Your task to perform on an android device: Add "razer thresher" to the cart on amazon Image 0: 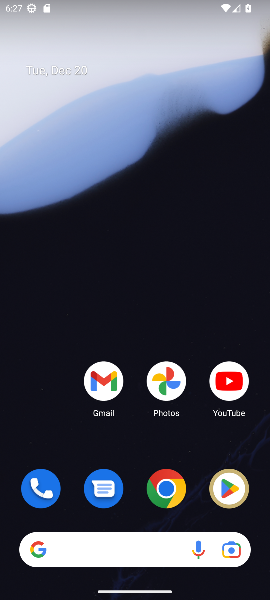
Step 0: drag from (66, 406) to (65, 31)
Your task to perform on an android device: Add "razer thresher" to the cart on amazon Image 1: 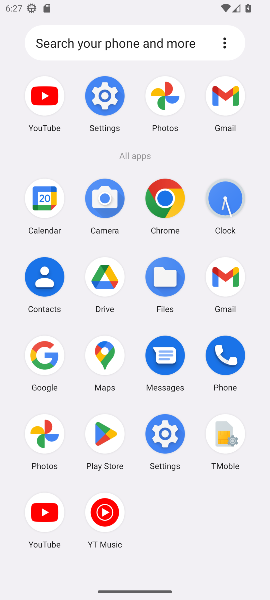
Step 1: click (45, 358)
Your task to perform on an android device: Add "razer thresher" to the cart on amazon Image 2: 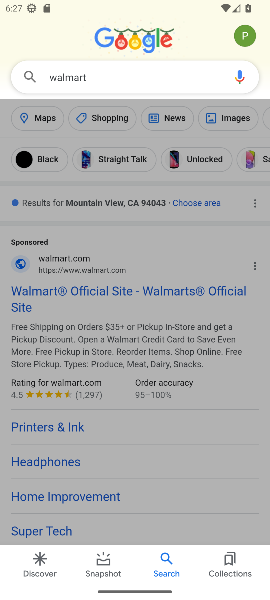
Step 2: click (110, 69)
Your task to perform on an android device: Add "razer thresher" to the cart on amazon Image 3: 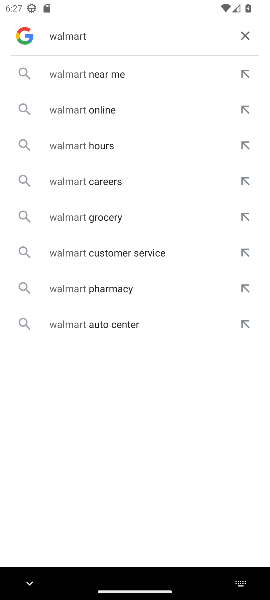
Step 3: click (246, 34)
Your task to perform on an android device: Add "razer thresher" to the cart on amazon Image 4: 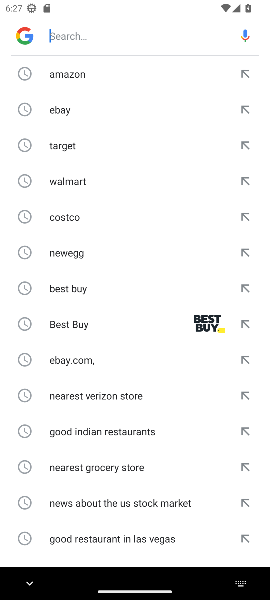
Step 4: type "amazon"
Your task to perform on an android device: Add "razer thresher" to the cart on amazon Image 5: 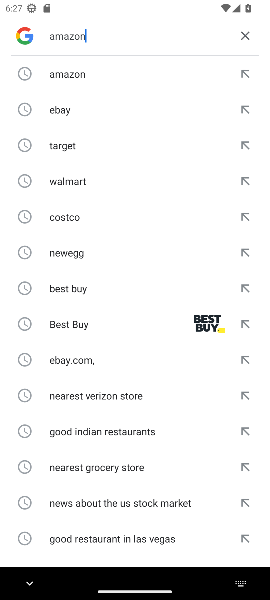
Step 5: press enter
Your task to perform on an android device: Add "razer thresher" to the cart on amazon Image 6: 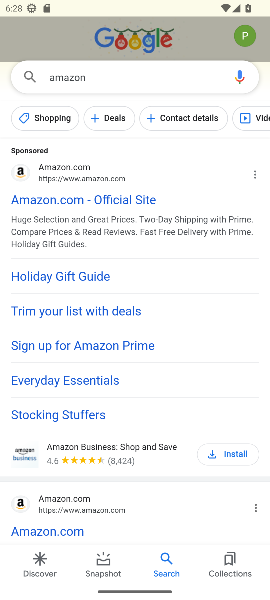
Step 6: click (90, 196)
Your task to perform on an android device: Add "razer thresher" to the cart on amazon Image 7: 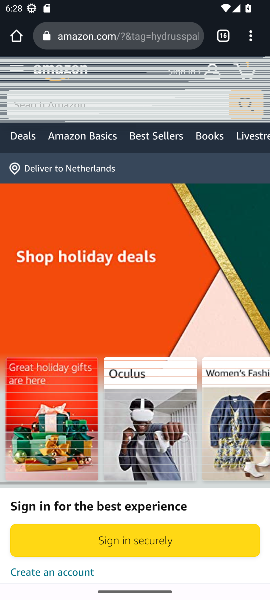
Step 7: click (67, 103)
Your task to perform on an android device: Add "razer thresher" to the cart on amazon Image 8: 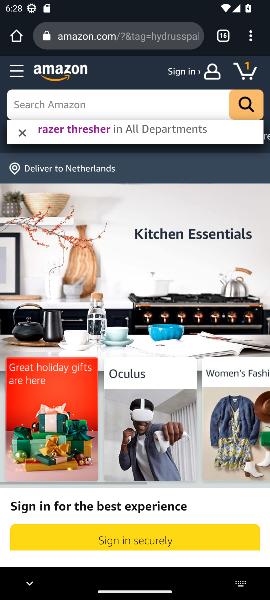
Step 8: type "razer thresher"
Your task to perform on an android device: Add "razer thresher" to the cart on amazon Image 9: 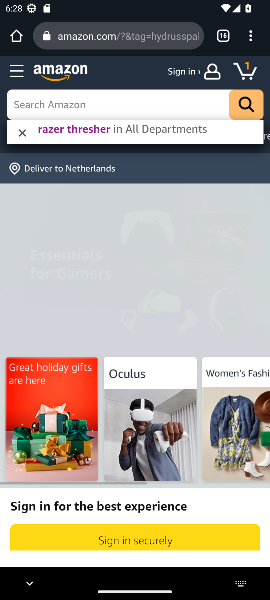
Step 9: press enter
Your task to perform on an android device: Add "razer thresher" to the cart on amazon Image 10: 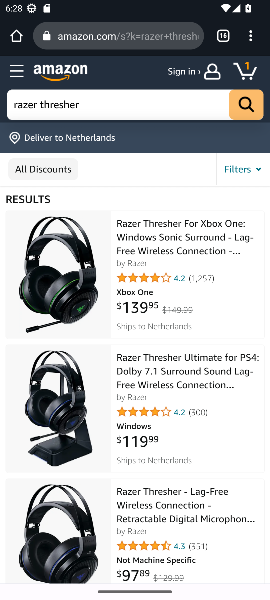
Step 10: click (169, 231)
Your task to perform on an android device: Add "razer thresher" to the cart on amazon Image 11: 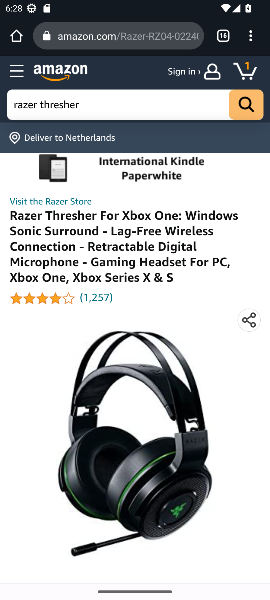
Step 11: drag from (139, 427) to (157, 237)
Your task to perform on an android device: Add "razer thresher" to the cart on amazon Image 12: 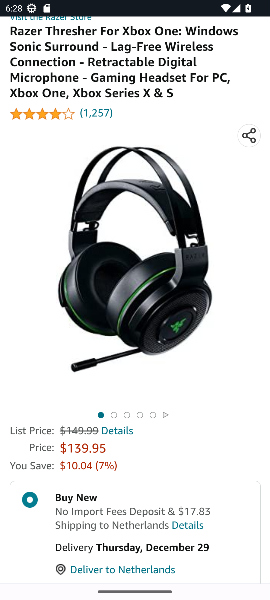
Step 12: drag from (152, 494) to (161, 218)
Your task to perform on an android device: Add "razer thresher" to the cart on amazon Image 13: 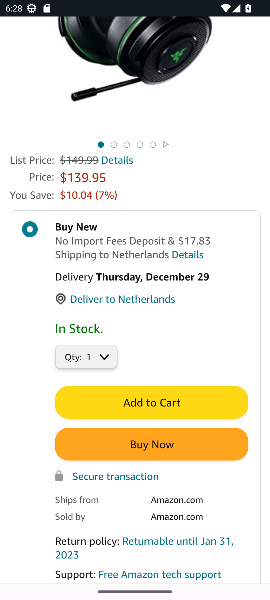
Step 13: click (140, 403)
Your task to perform on an android device: Add "razer thresher" to the cart on amazon Image 14: 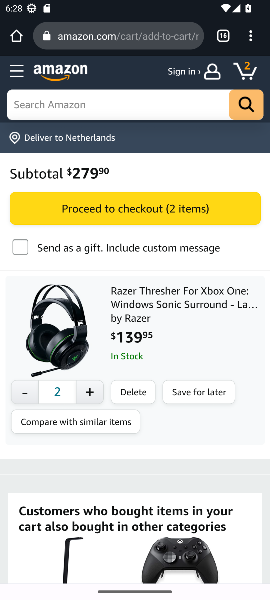
Step 14: task complete